Your task to perform on an android device: Go to privacy settings Image 0: 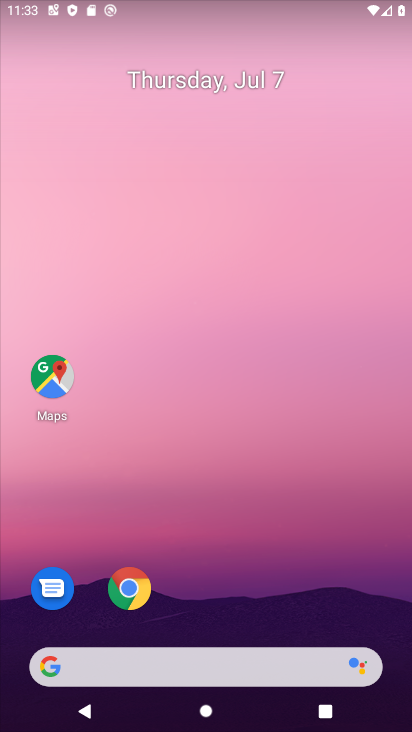
Step 0: drag from (255, 625) to (225, 101)
Your task to perform on an android device: Go to privacy settings Image 1: 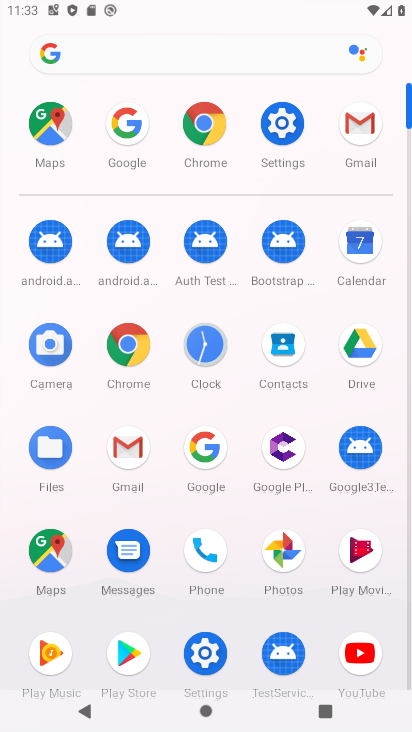
Step 1: click (283, 122)
Your task to perform on an android device: Go to privacy settings Image 2: 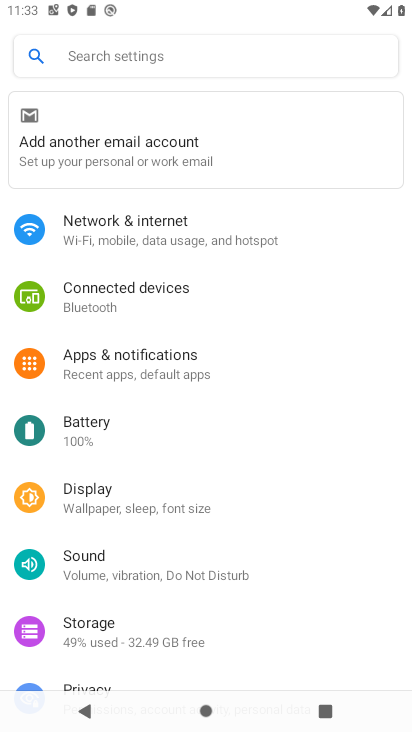
Step 2: drag from (239, 672) to (306, 314)
Your task to perform on an android device: Go to privacy settings Image 3: 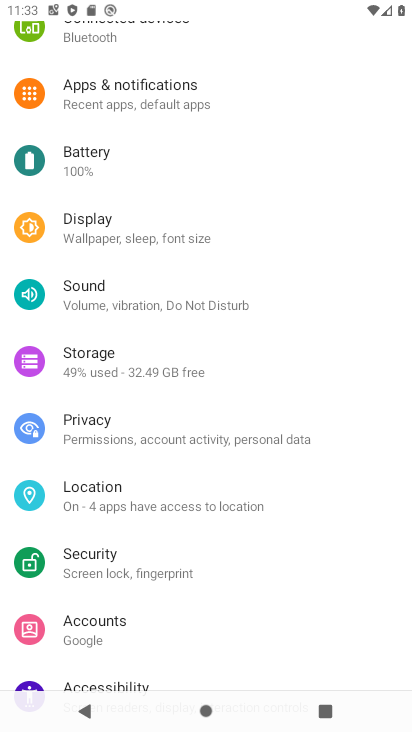
Step 3: click (89, 444)
Your task to perform on an android device: Go to privacy settings Image 4: 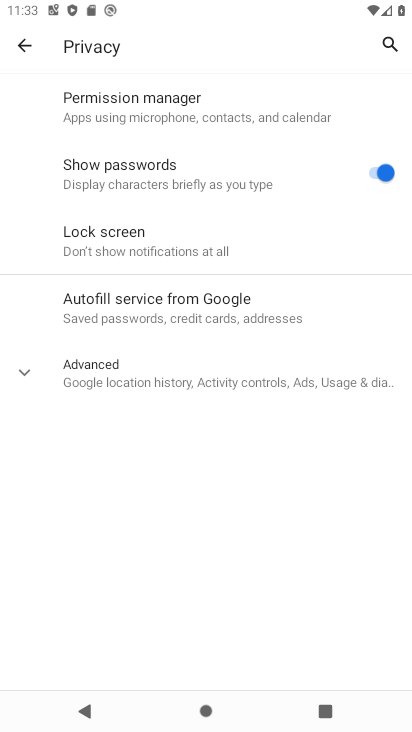
Step 4: task complete